Your task to perform on an android device: check android version Image 0: 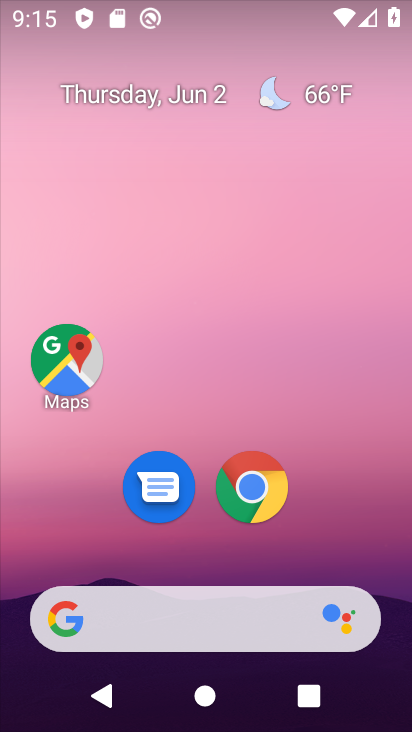
Step 0: drag from (242, 728) to (238, 72)
Your task to perform on an android device: check android version Image 1: 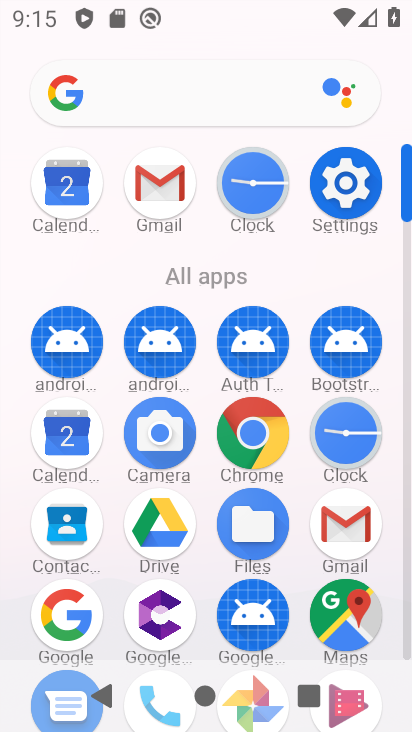
Step 1: click (342, 181)
Your task to perform on an android device: check android version Image 2: 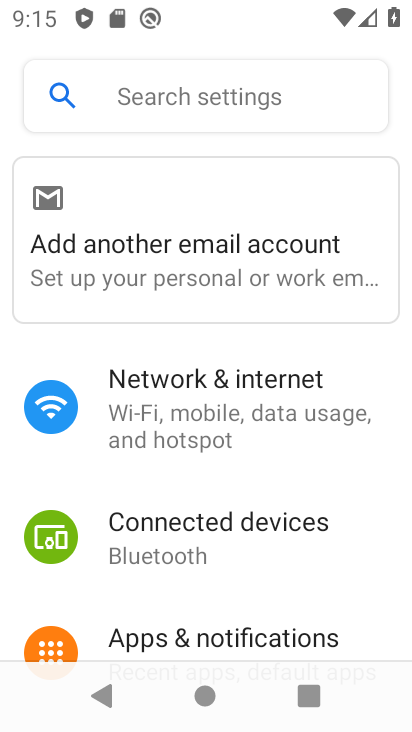
Step 2: task complete